Your task to perform on an android device: Toggle the flashlight Image 0: 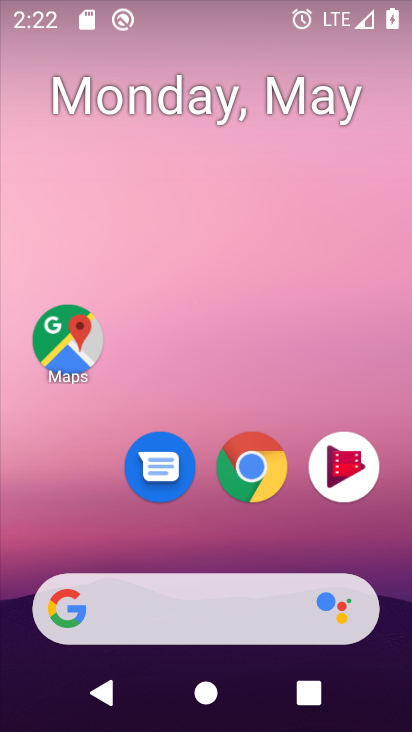
Step 0: drag from (303, 285) to (312, 174)
Your task to perform on an android device: Toggle the flashlight Image 1: 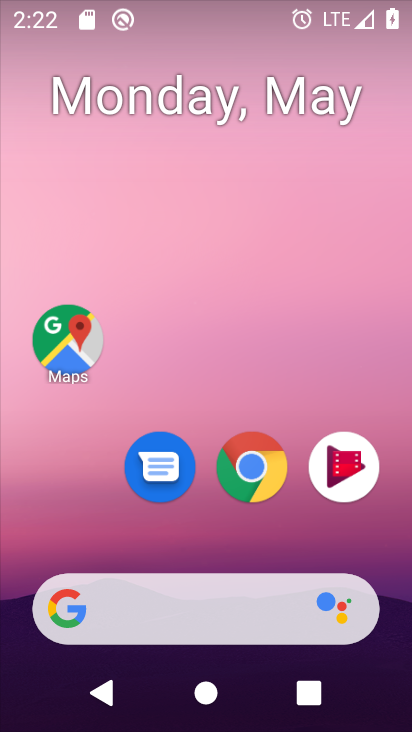
Step 1: drag from (177, 545) to (235, 216)
Your task to perform on an android device: Toggle the flashlight Image 2: 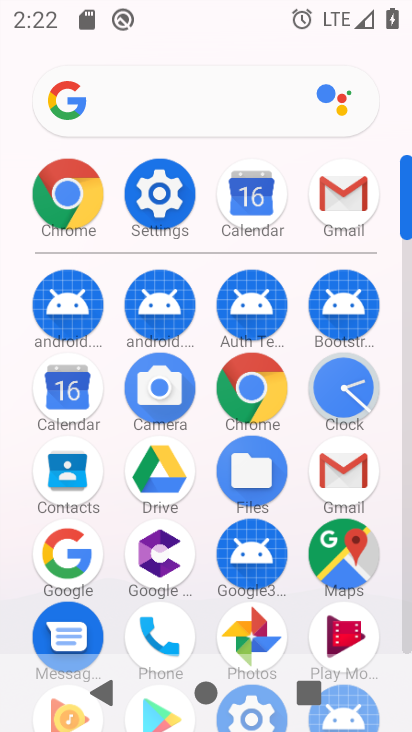
Step 2: click (163, 196)
Your task to perform on an android device: Toggle the flashlight Image 3: 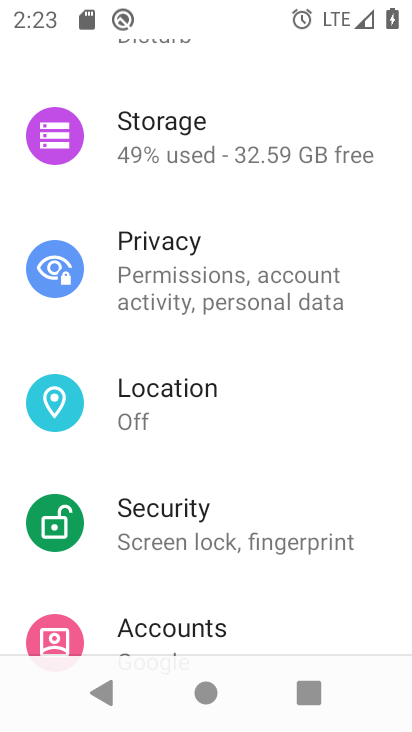
Step 3: task complete